Your task to perform on an android device: Search for "razer blade" on amazon, select the first entry, and add it to the cart. Image 0: 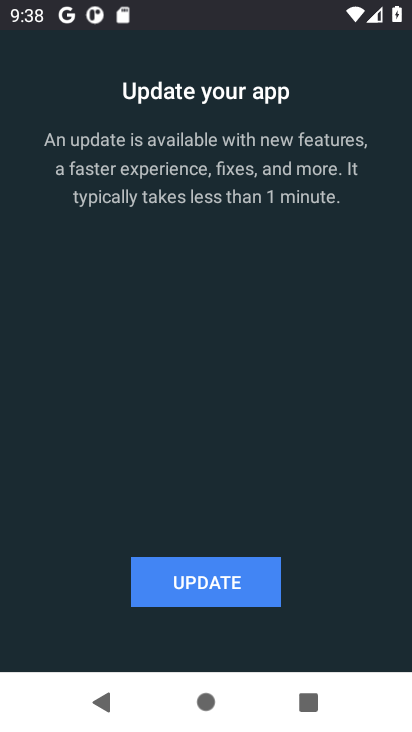
Step 0: press home button
Your task to perform on an android device: Search for "razer blade" on amazon, select the first entry, and add it to the cart. Image 1: 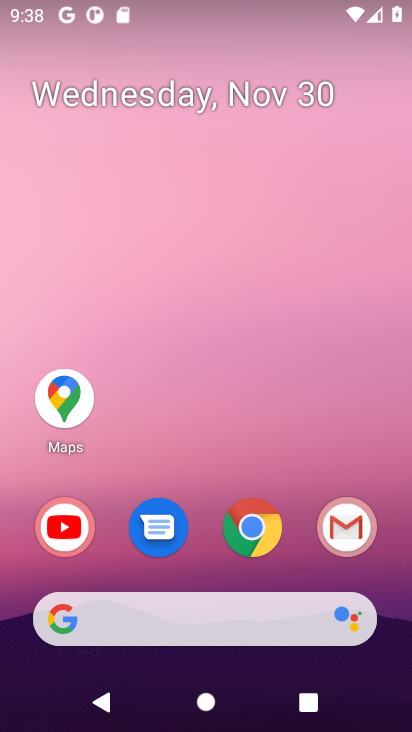
Step 1: click (249, 527)
Your task to perform on an android device: Search for "razer blade" on amazon, select the first entry, and add it to the cart. Image 2: 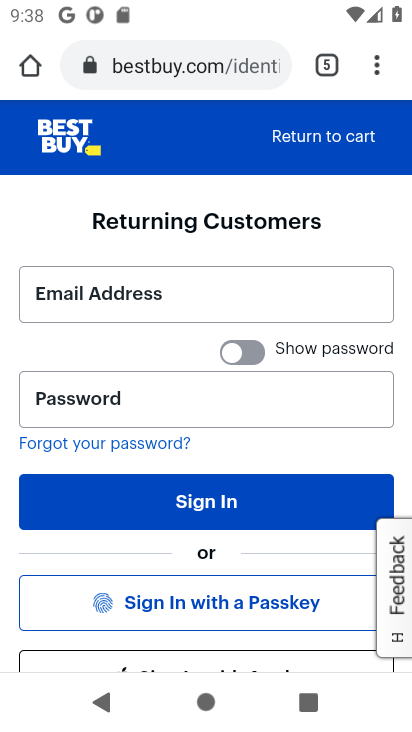
Step 2: click (260, 64)
Your task to perform on an android device: Search for "razer blade" on amazon, select the first entry, and add it to the cart. Image 3: 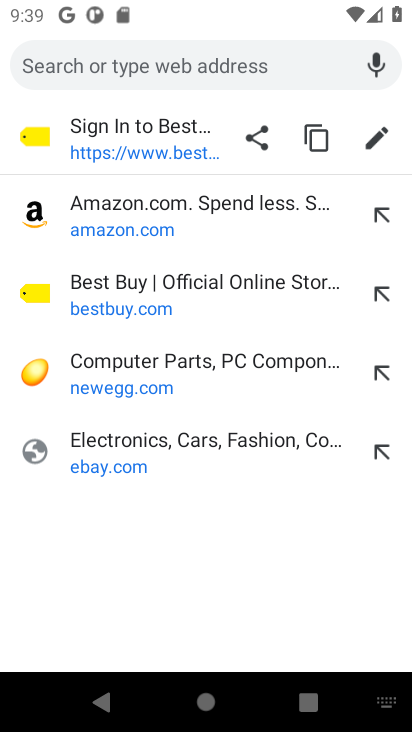
Step 3: click (174, 201)
Your task to perform on an android device: Search for "razer blade" on amazon, select the first entry, and add it to the cart. Image 4: 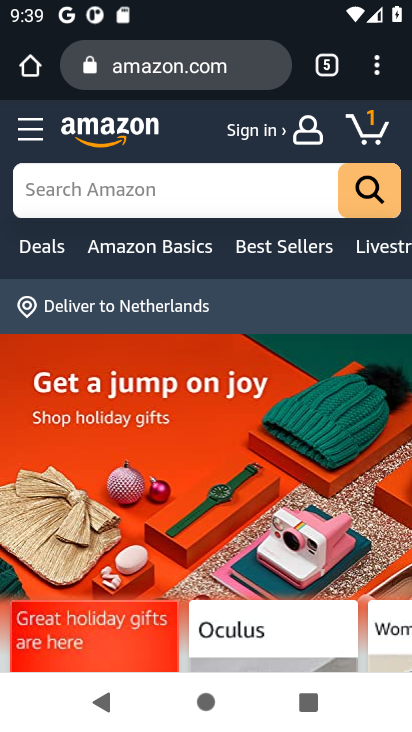
Step 4: click (256, 169)
Your task to perform on an android device: Search for "razer blade" on amazon, select the first entry, and add it to the cart. Image 5: 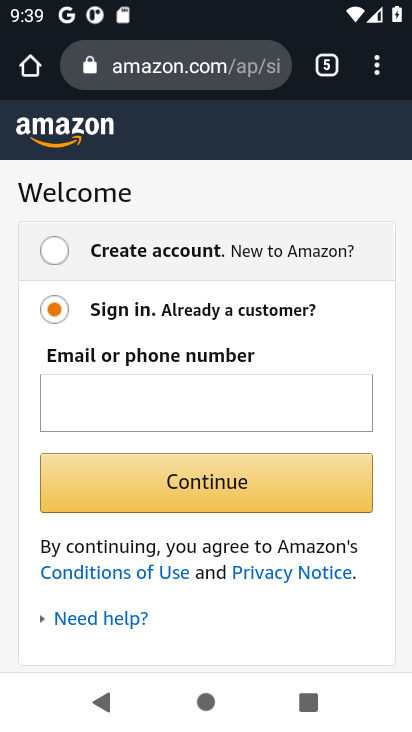
Step 5: type "razer blade"
Your task to perform on an android device: Search for "razer blade" on amazon, select the first entry, and add it to the cart. Image 6: 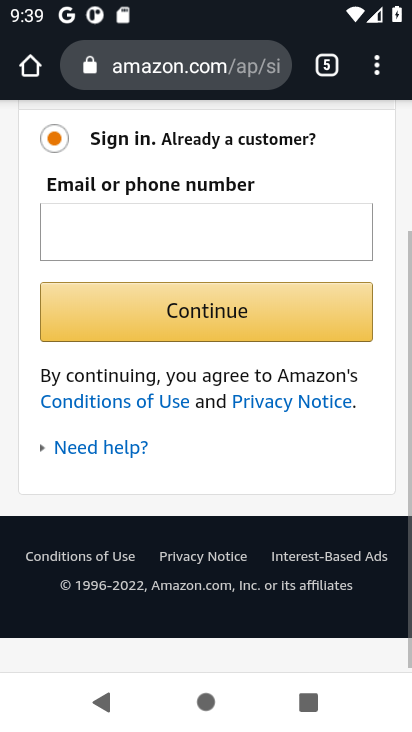
Step 6: press back button
Your task to perform on an android device: Search for "razer blade" on amazon, select the first entry, and add it to the cart. Image 7: 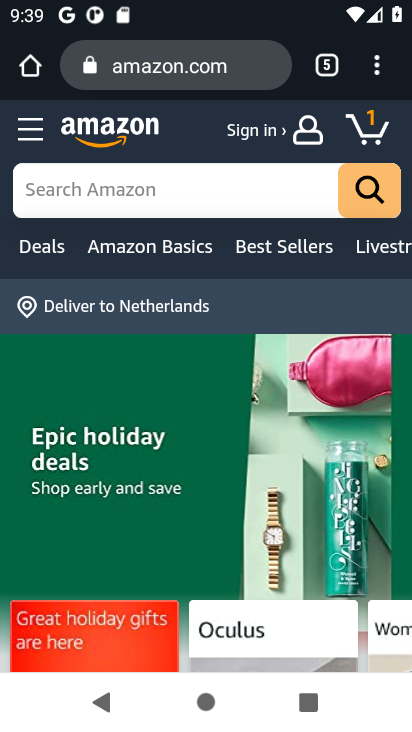
Step 7: click (157, 191)
Your task to perform on an android device: Search for "razer blade" on amazon, select the first entry, and add it to the cart. Image 8: 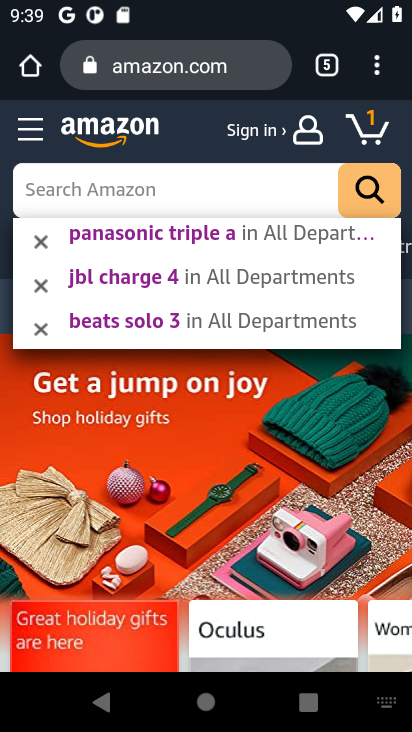
Step 8: type "razer blade"
Your task to perform on an android device: Search for "razer blade" on amazon, select the first entry, and add it to the cart. Image 9: 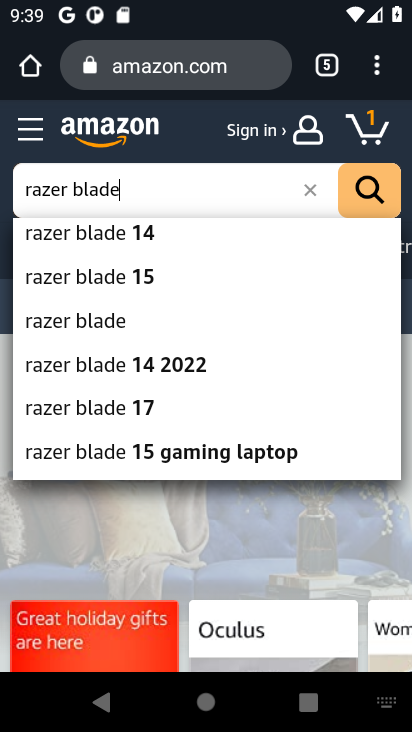
Step 9: press enter
Your task to perform on an android device: Search for "razer blade" on amazon, select the first entry, and add it to the cart. Image 10: 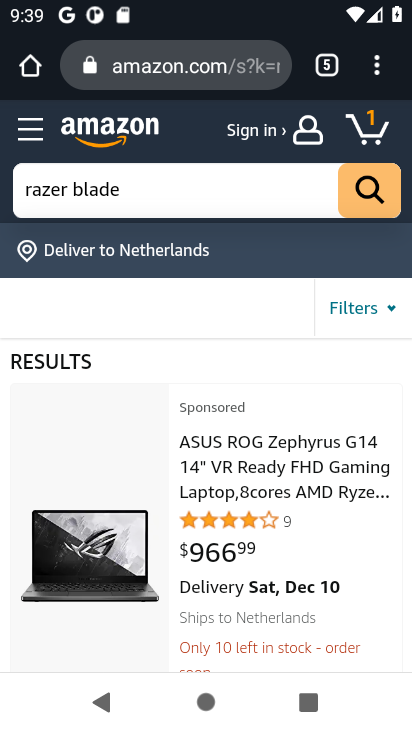
Step 10: drag from (279, 500) to (297, 131)
Your task to perform on an android device: Search for "razer blade" on amazon, select the first entry, and add it to the cart. Image 11: 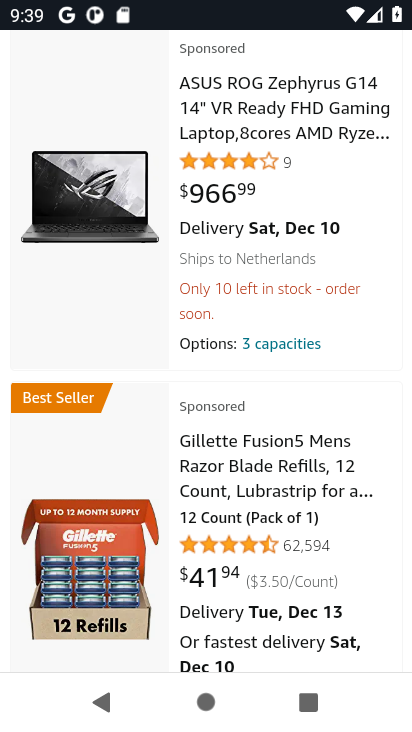
Step 11: drag from (315, 502) to (332, 141)
Your task to perform on an android device: Search for "razer blade" on amazon, select the first entry, and add it to the cart. Image 12: 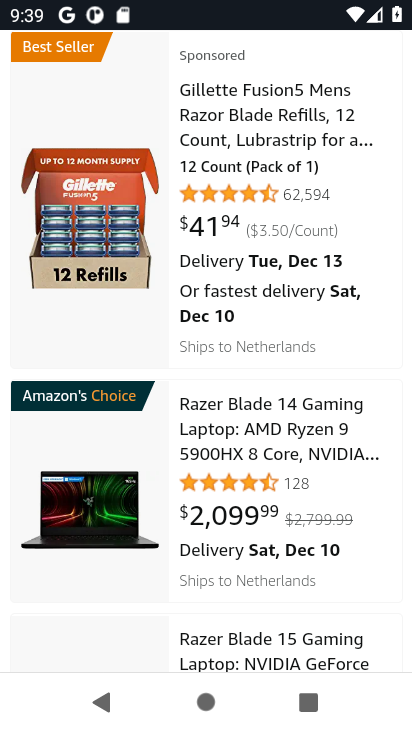
Step 12: click (92, 499)
Your task to perform on an android device: Search for "razer blade" on amazon, select the first entry, and add it to the cart. Image 13: 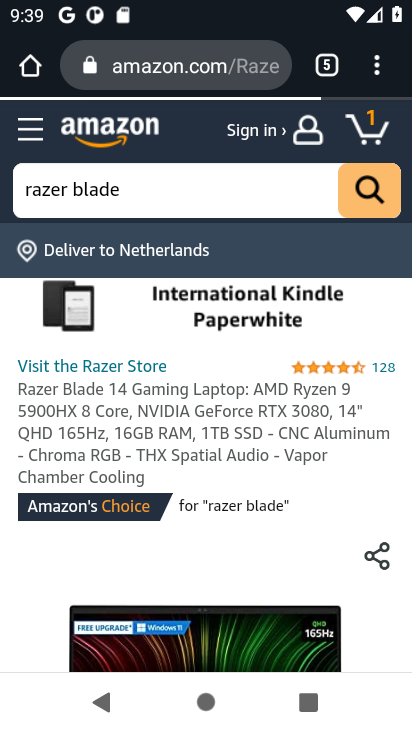
Step 13: drag from (283, 552) to (369, 61)
Your task to perform on an android device: Search for "razer blade" on amazon, select the first entry, and add it to the cart. Image 14: 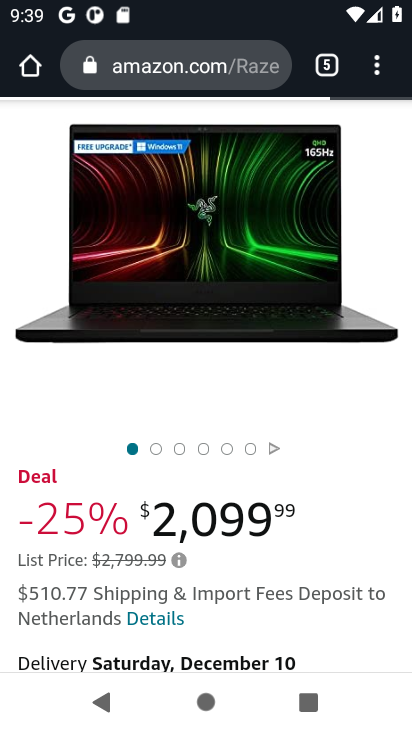
Step 14: drag from (351, 493) to (402, 112)
Your task to perform on an android device: Search for "razer blade" on amazon, select the first entry, and add it to the cart. Image 15: 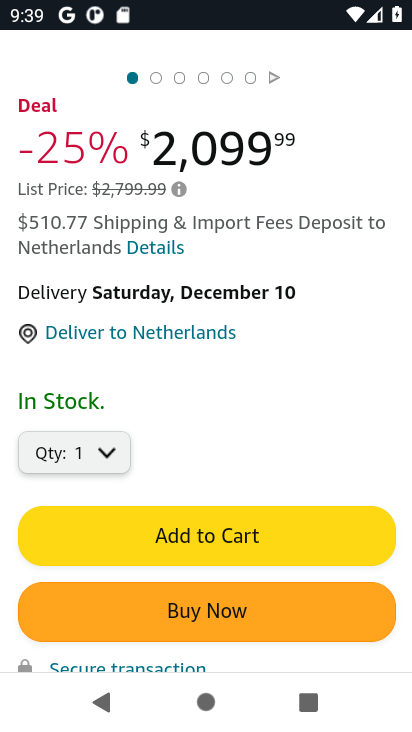
Step 15: click (249, 533)
Your task to perform on an android device: Search for "razer blade" on amazon, select the first entry, and add it to the cart. Image 16: 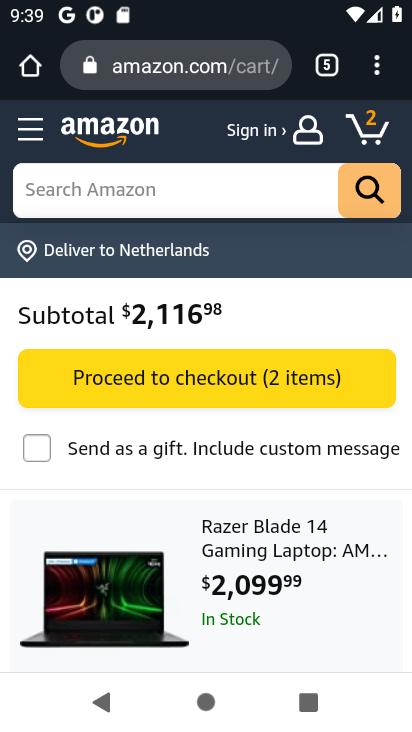
Step 16: task complete